Your task to perform on an android device: Open calendar and show me the first week of next month Image 0: 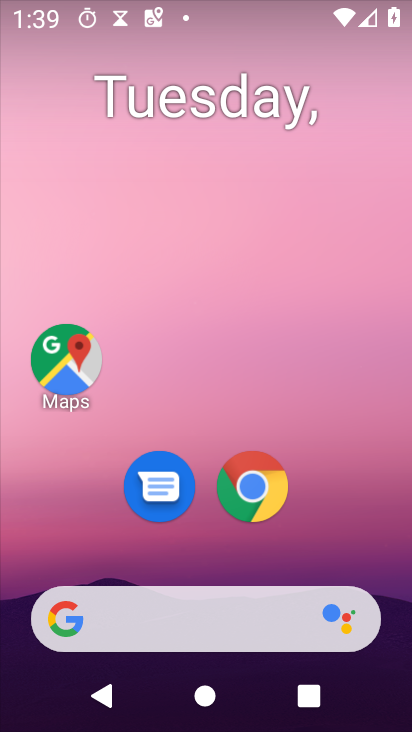
Step 0: drag from (384, 572) to (288, 34)
Your task to perform on an android device: Open calendar and show me the first week of next month Image 1: 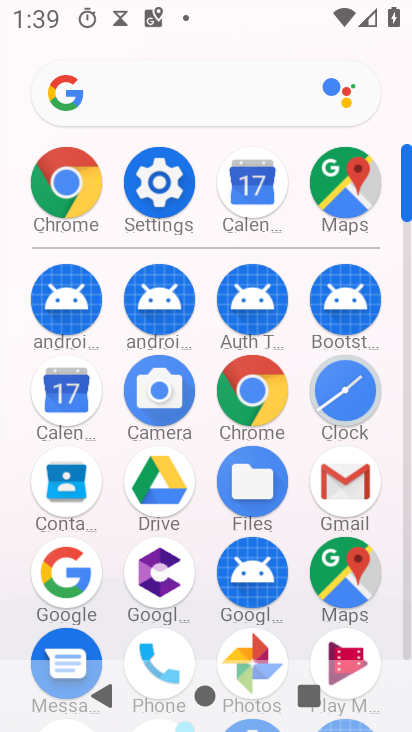
Step 1: click (247, 178)
Your task to perform on an android device: Open calendar and show me the first week of next month Image 2: 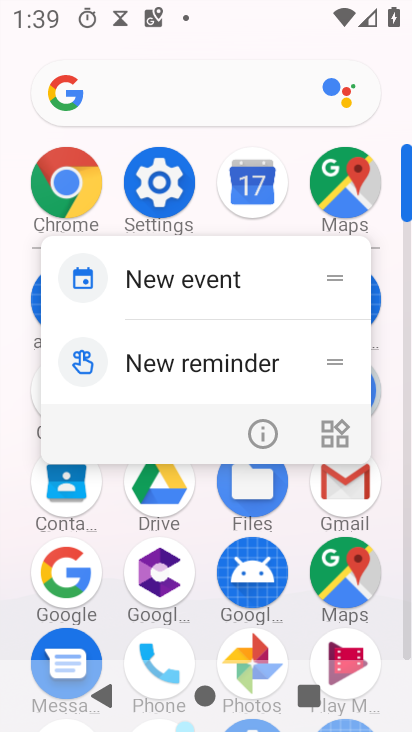
Step 2: click (248, 181)
Your task to perform on an android device: Open calendar and show me the first week of next month Image 3: 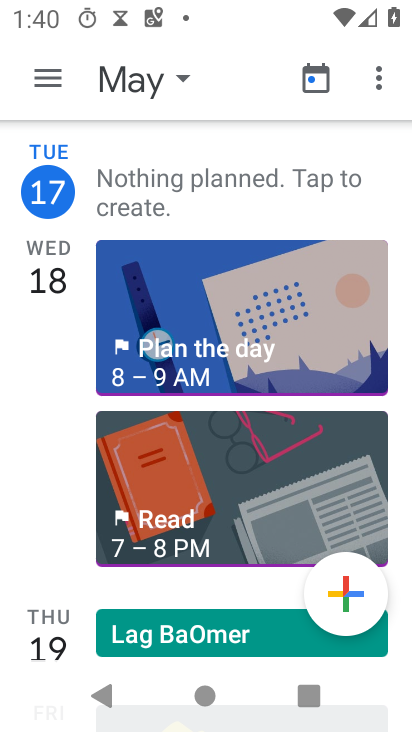
Step 3: click (53, 83)
Your task to perform on an android device: Open calendar and show me the first week of next month Image 4: 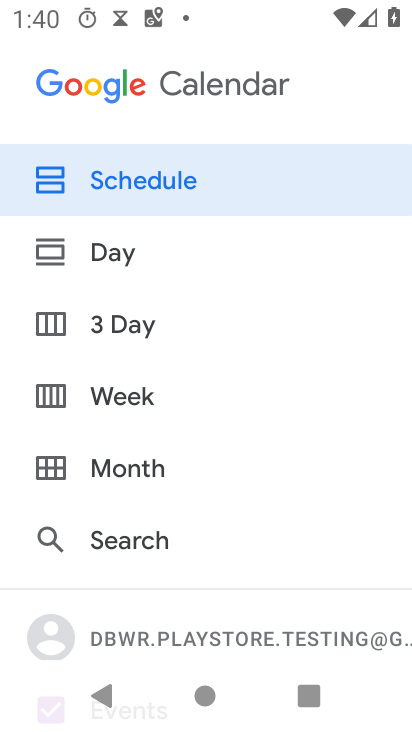
Step 4: click (162, 404)
Your task to perform on an android device: Open calendar and show me the first week of next month Image 5: 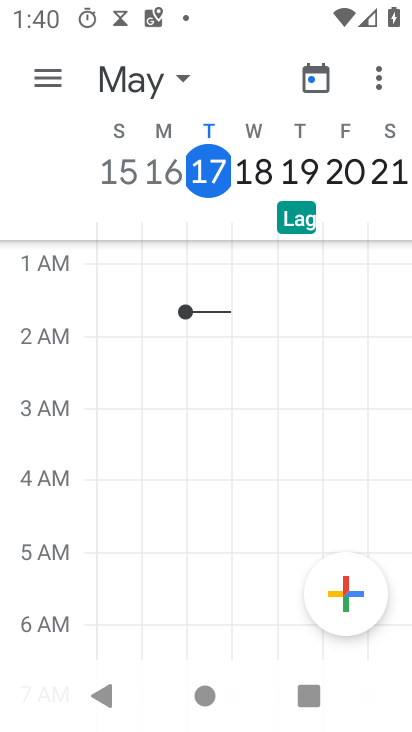
Step 5: click (160, 68)
Your task to perform on an android device: Open calendar and show me the first week of next month Image 6: 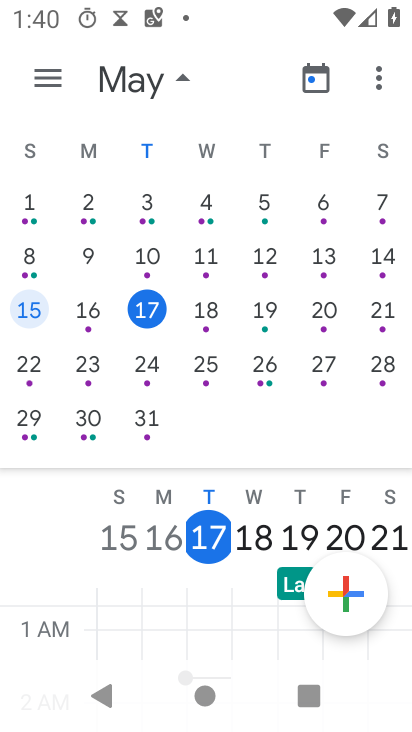
Step 6: drag from (393, 290) to (27, 266)
Your task to perform on an android device: Open calendar and show me the first week of next month Image 7: 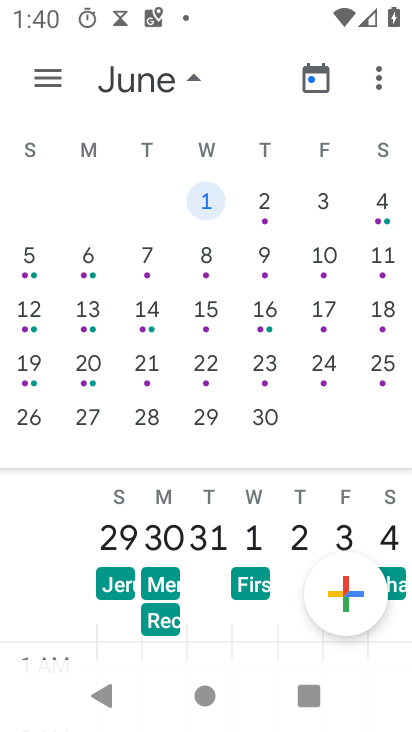
Step 7: click (189, 259)
Your task to perform on an android device: Open calendar and show me the first week of next month Image 8: 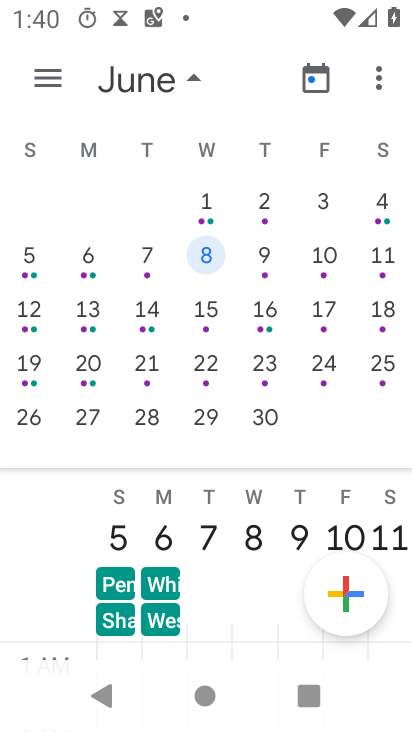
Step 8: click (158, 84)
Your task to perform on an android device: Open calendar and show me the first week of next month Image 9: 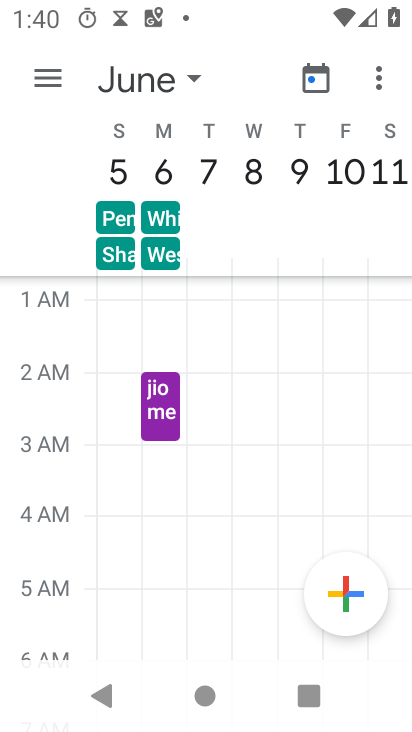
Step 9: task complete